Your task to perform on an android device: Check the weather Image 0: 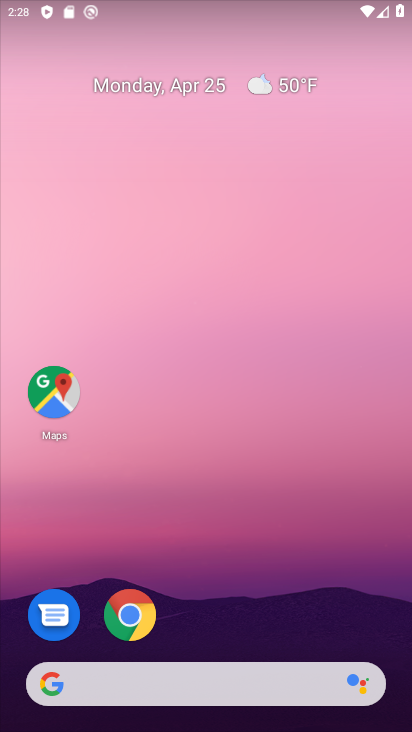
Step 0: click (261, 81)
Your task to perform on an android device: Check the weather Image 1: 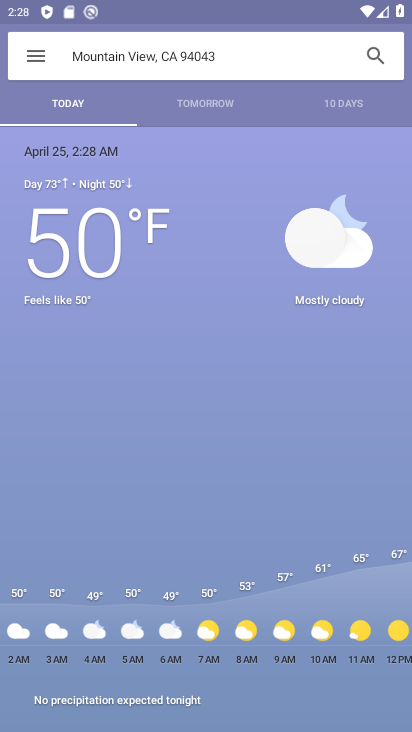
Step 1: task complete